Your task to perform on an android device: change the clock display to show seconds Image 0: 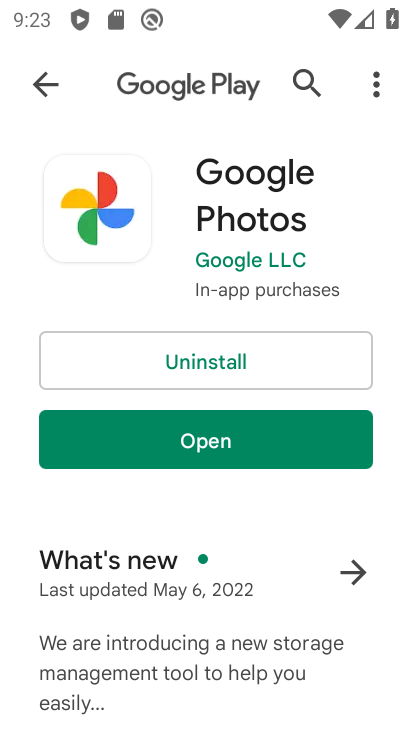
Step 0: press home button
Your task to perform on an android device: change the clock display to show seconds Image 1: 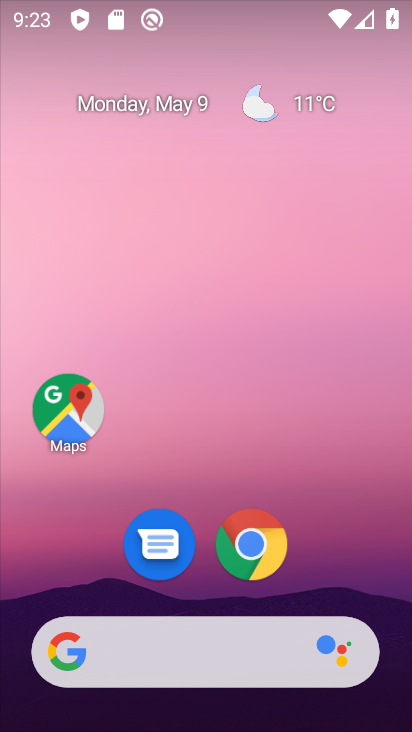
Step 1: drag from (403, 308) to (387, 194)
Your task to perform on an android device: change the clock display to show seconds Image 2: 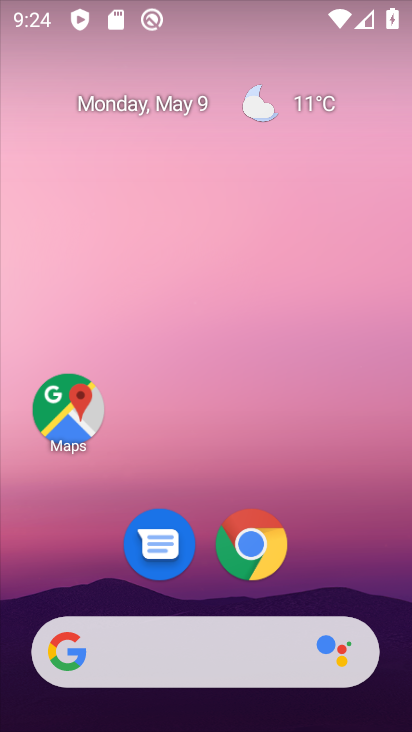
Step 2: drag from (393, 653) to (380, 230)
Your task to perform on an android device: change the clock display to show seconds Image 3: 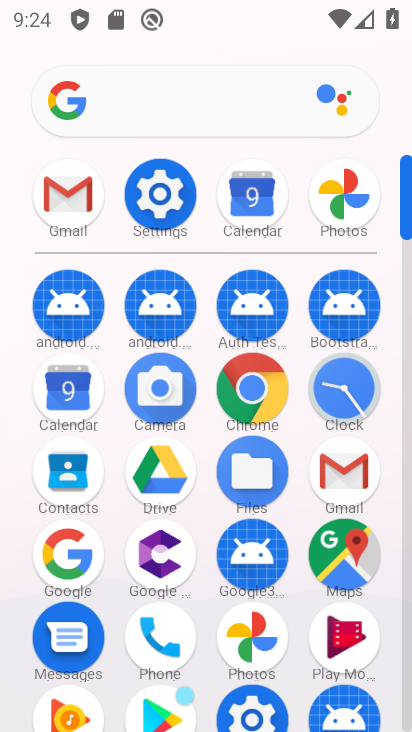
Step 3: click (347, 388)
Your task to perform on an android device: change the clock display to show seconds Image 4: 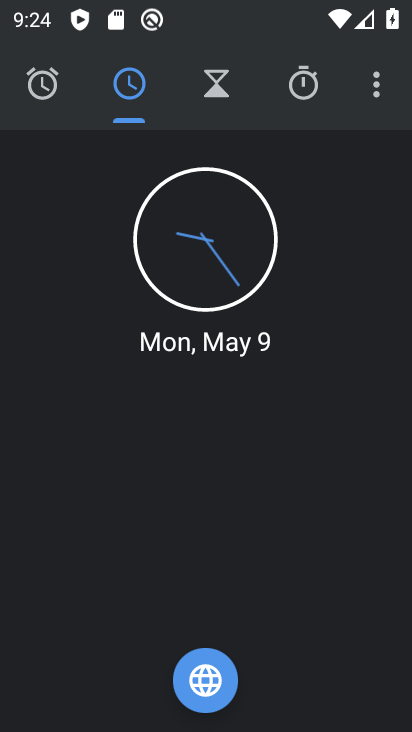
Step 4: click (373, 93)
Your task to perform on an android device: change the clock display to show seconds Image 5: 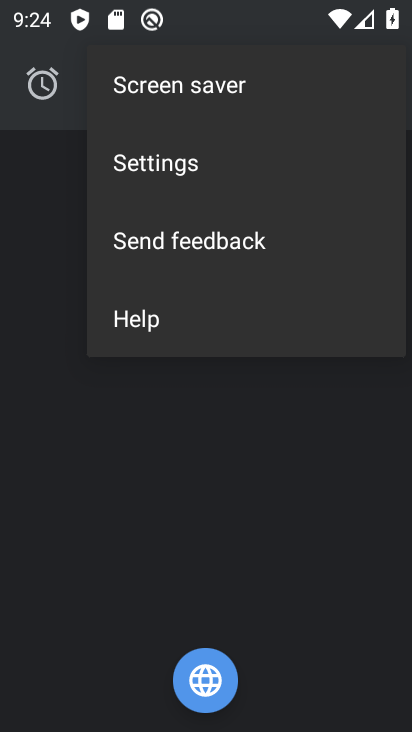
Step 5: click (163, 164)
Your task to perform on an android device: change the clock display to show seconds Image 6: 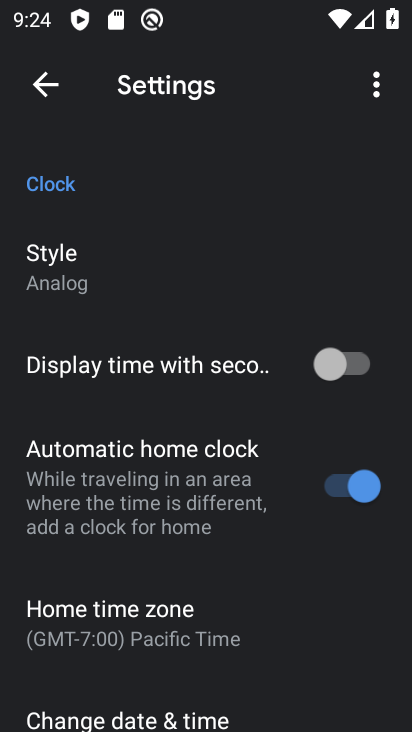
Step 6: click (355, 372)
Your task to perform on an android device: change the clock display to show seconds Image 7: 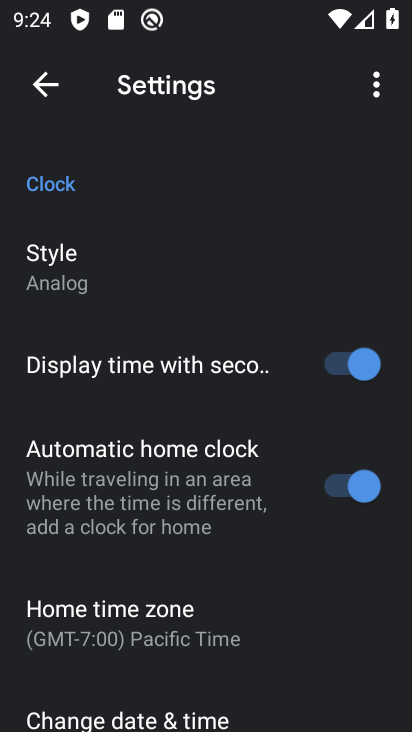
Step 7: task complete